Your task to perform on an android device: Open the calendar app, open the side menu, and click the "Day" option Image 0: 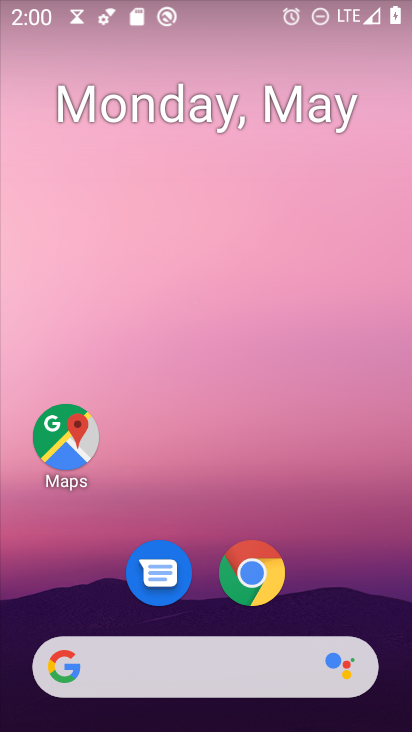
Step 0: drag from (156, 648) to (209, 93)
Your task to perform on an android device: Open the calendar app, open the side menu, and click the "Day" option Image 1: 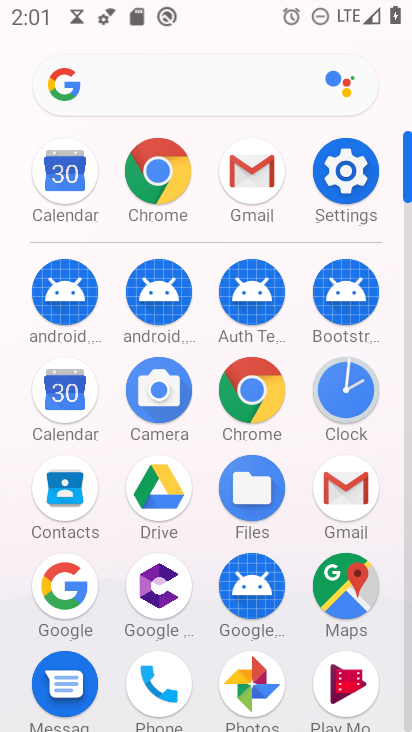
Step 1: click (56, 391)
Your task to perform on an android device: Open the calendar app, open the side menu, and click the "Day" option Image 2: 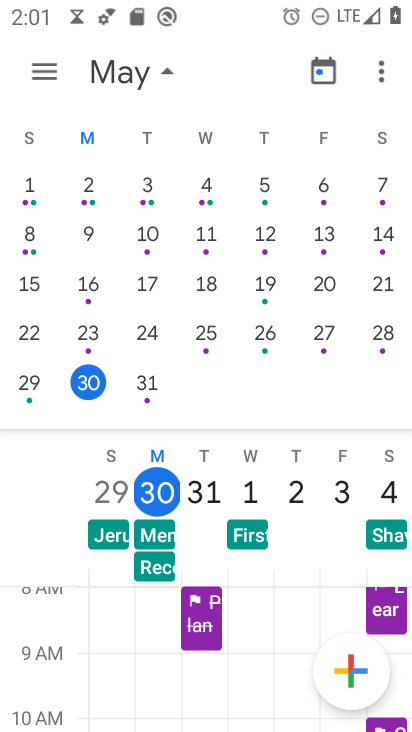
Step 2: click (37, 60)
Your task to perform on an android device: Open the calendar app, open the side menu, and click the "Day" option Image 3: 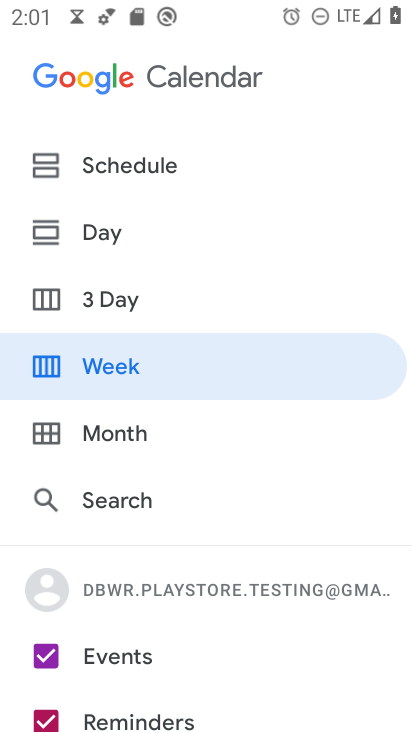
Step 3: click (121, 231)
Your task to perform on an android device: Open the calendar app, open the side menu, and click the "Day" option Image 4: 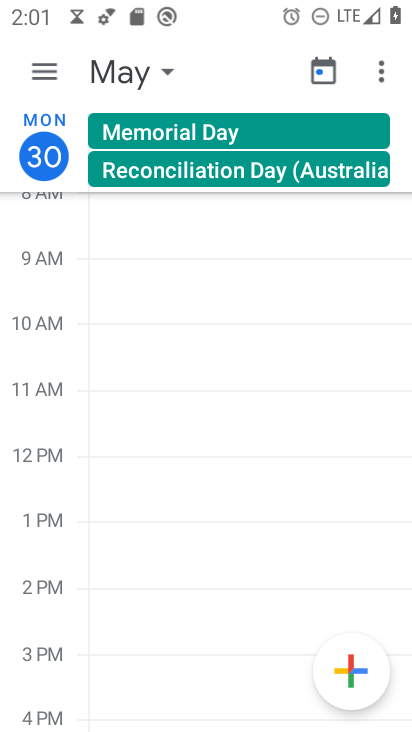
Step 4: task complete